Your task to perform on an android device: Is it going to rain today? Image 0: 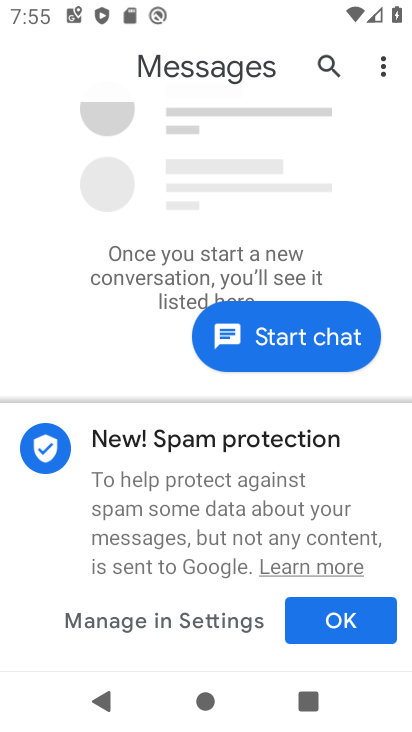
Step 0: press home button
Your task to perform on an android device: Is it going to rain today? Image 1: 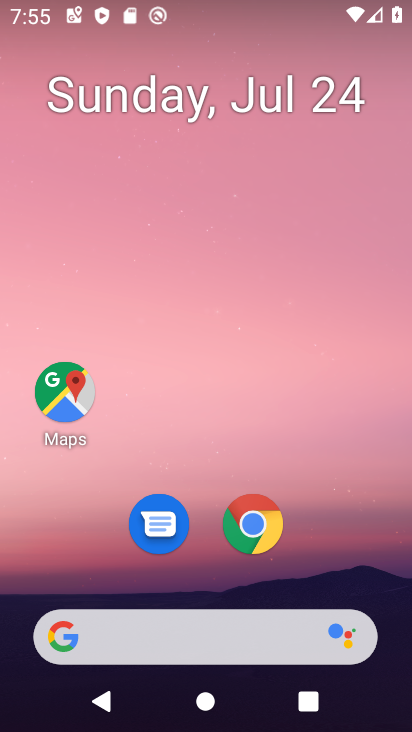
Step 1: click (129, 633)
Your task to perform on an android device: Is it going to rain today? Image 2: 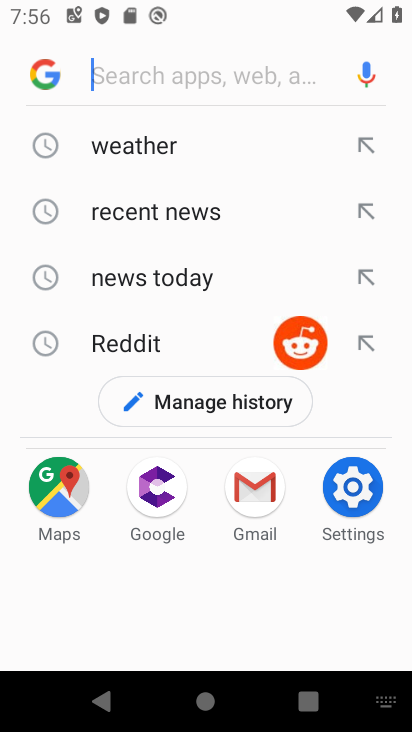
Step 2: click (155, 145)
Your task to perform on an android device: Is it going to rain today? Image 3: 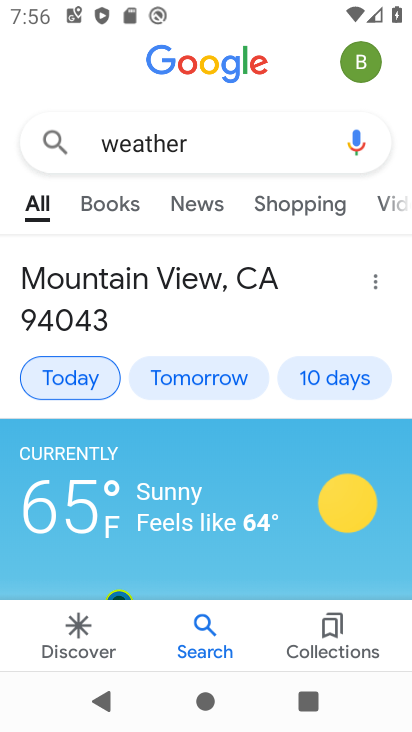
Step 3: task complete